Your task to perform on an android device: Go to network settings Image 0: 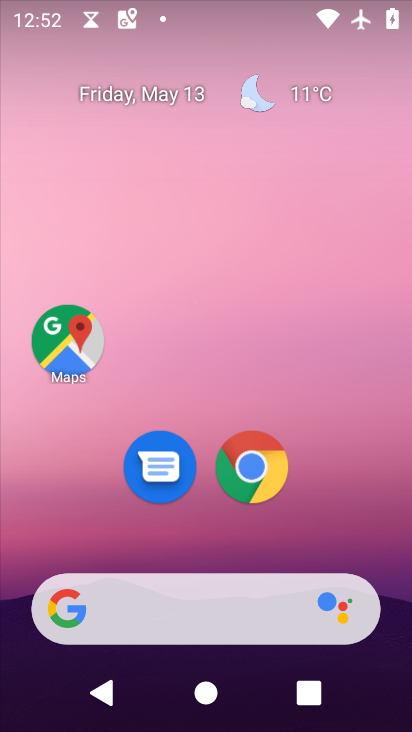
Step 0: drag from (337, 466) to (193, 43)
Your task to perform on an android device: Go to network settings Image 1: 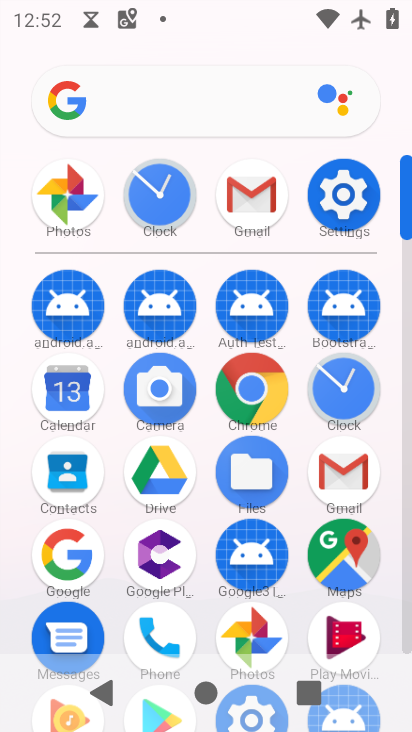
Step 1: click (337, 172)
Your task to perform on an android device: Go to network settings Image 2: 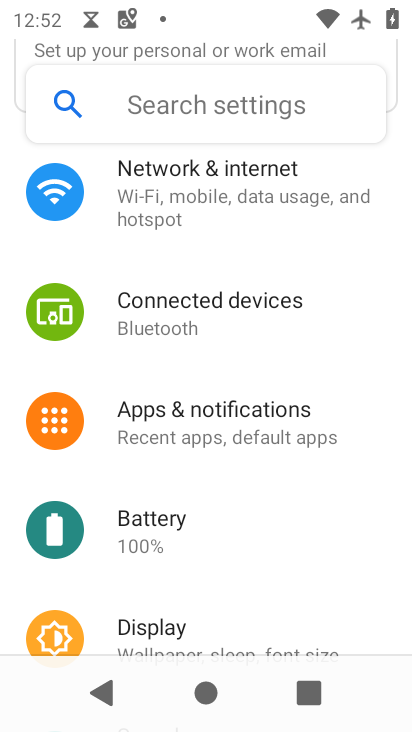
Step 2: click (188, 215)
Your task to perform on an android device: Go to network settings Image 3: 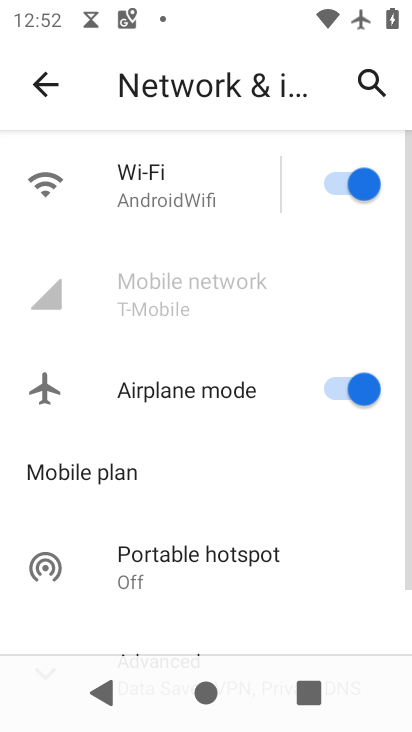
Step 3: task complete